Your task to perform on an android device: Go to Reddit.com Image 0: 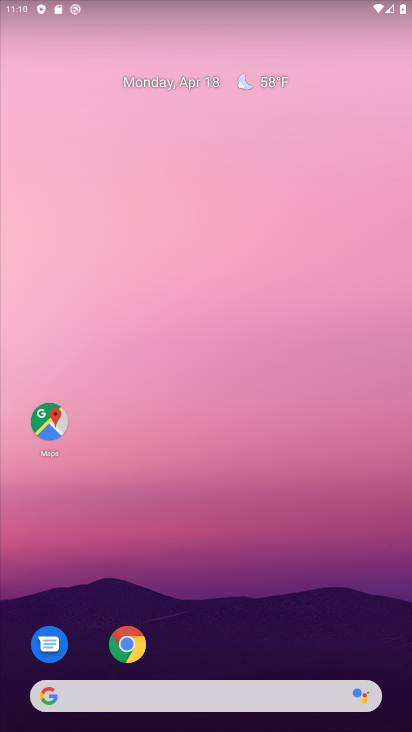
Step 0: click (133, 650)
Your task to perform on an android device: Go to Reddit.com Image 1: 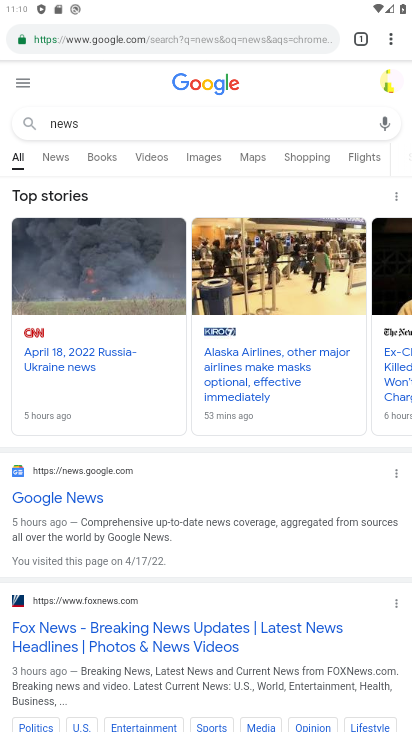
Step 1: click (82, 124)
Your task to perform on an android device: Go to Reddit.com Image 2: 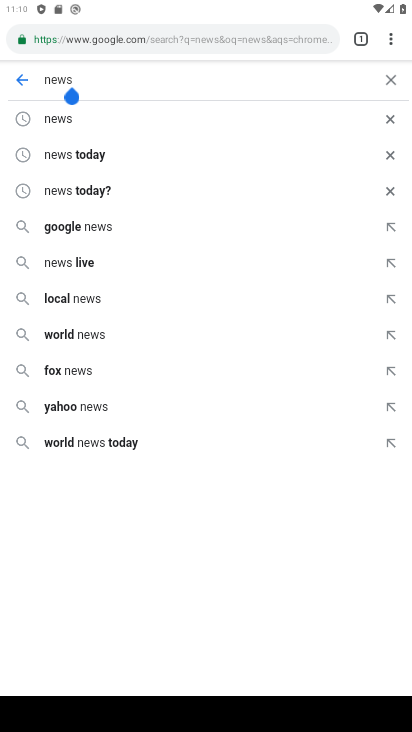
Step 2: click (389, 87)
Your task to perform on an android device: Go to Reddit.com Image 3: 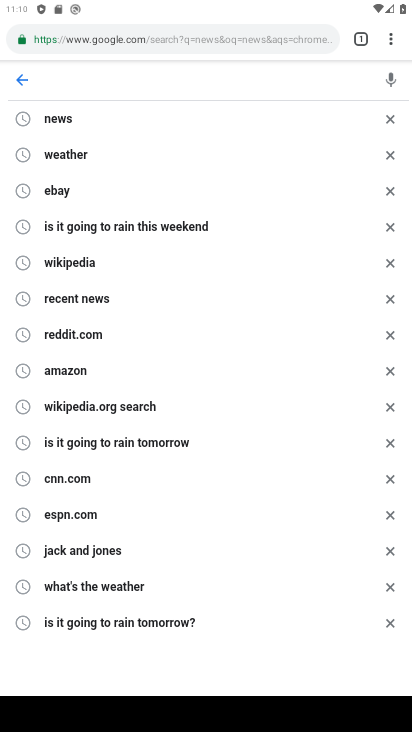
Step 3: type "Reddiit.com"
Your task to perform on an android device: Go to Reddit.com Image 4: 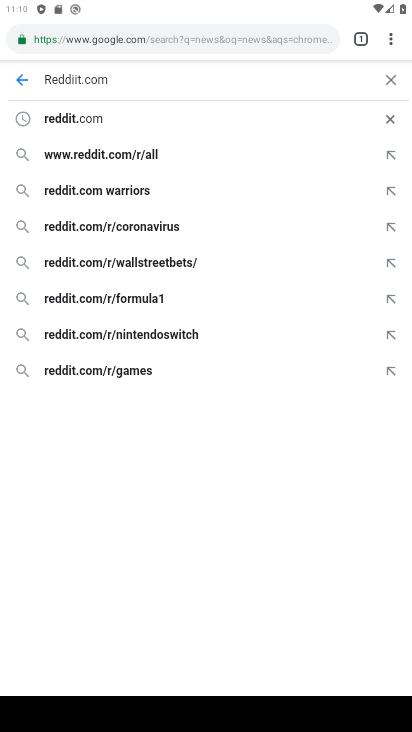
Step 4: click (74, 123)
Your task to perform on an android device: Go to Reddit.com Image 5: 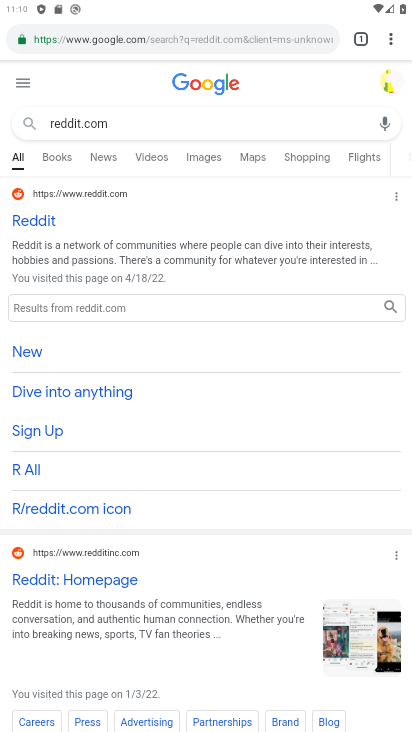
Step 5: task complete